Your task to perform on an android device: turn on data saver in the chrome app Image 0: 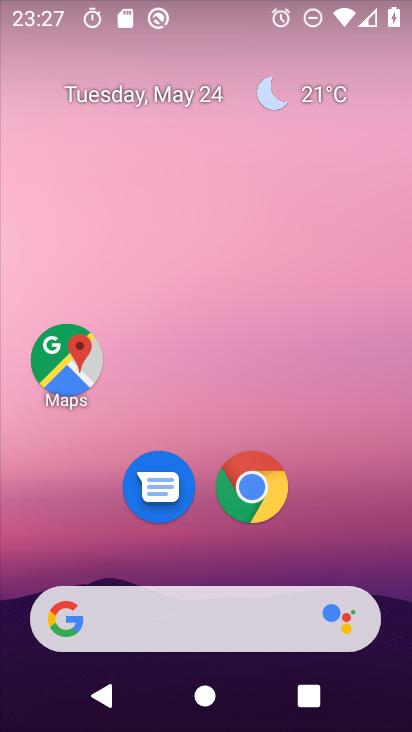
Step 0: click (259, 495)
Your task to perform on an android device: turn on data saver in the chrome app Image 1: 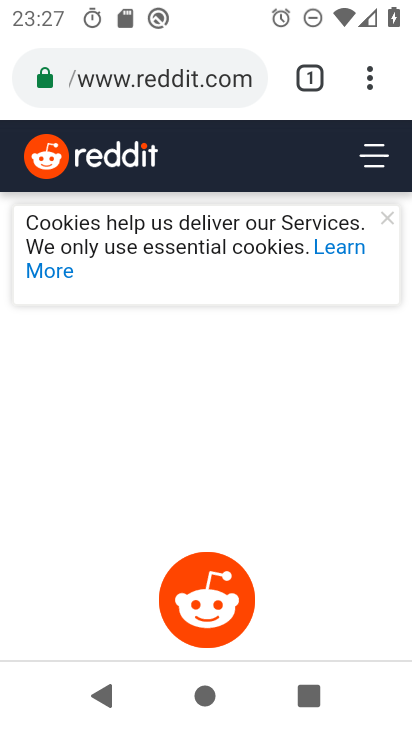
Step 1: click (371, 76)
Your task to perform on an android device: turn on data saver in the chrome app Image 2: 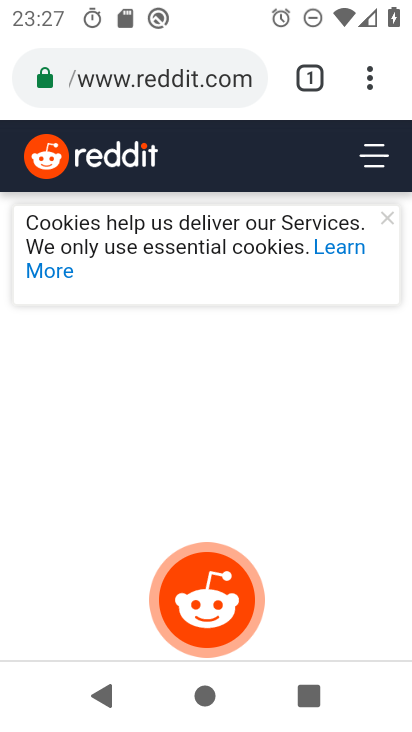
Step 2: click (369, 80)
Your task to perform on an android device: turn on data saver in the chrome app Image 3: 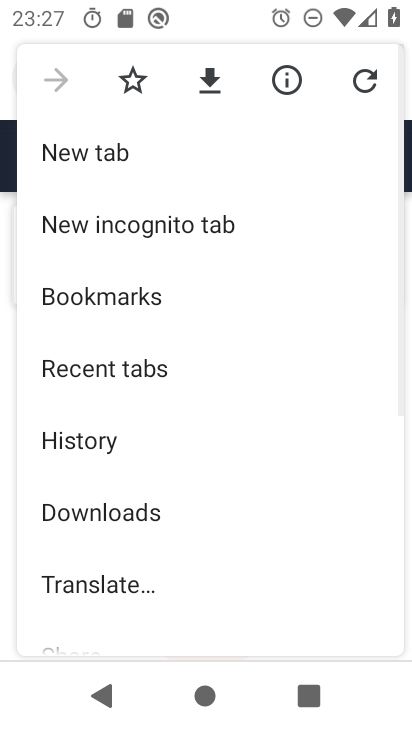
Step 3: drag from (153, 516) to (178, 68)
Your task to perform on an android device: turn on data saver in the chrome app Image 4: 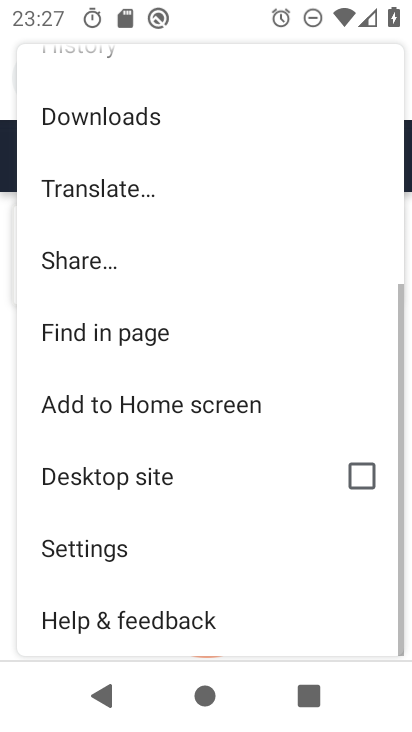
Step 4: click (102, 554)
Your task to perform on an android device: turn on data saver in the chrome app Image 5: 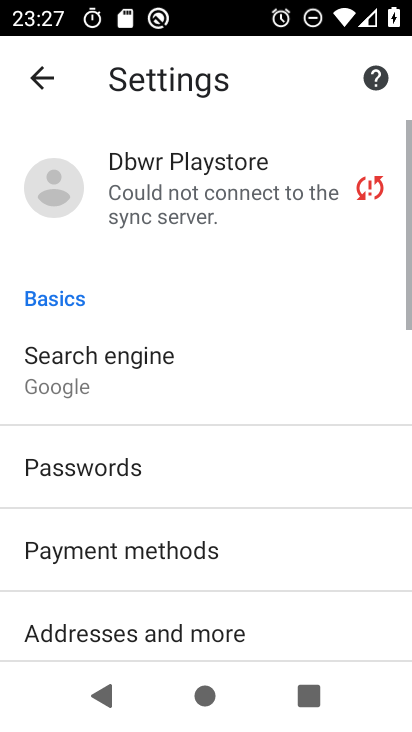
Step 5: drag from (190, 554) to (181, 12)
Your task to perform on an android device: turn on data saver in the chrome app Image 6: 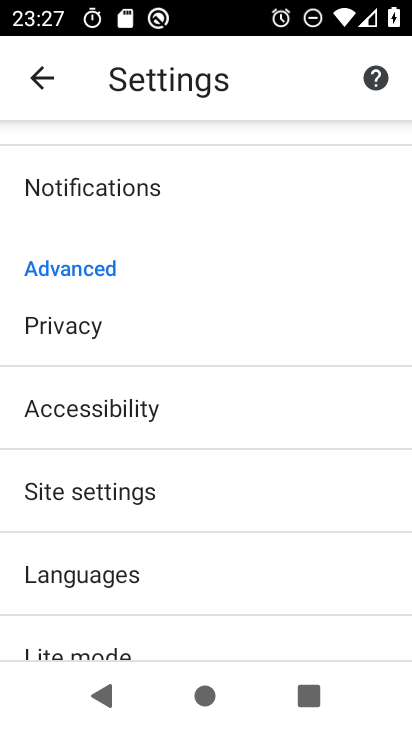
Step 6: drag from (200, 583) to (199, 278)
Your task to perform on an android device: turn on data saver in the chrome app Image 7: 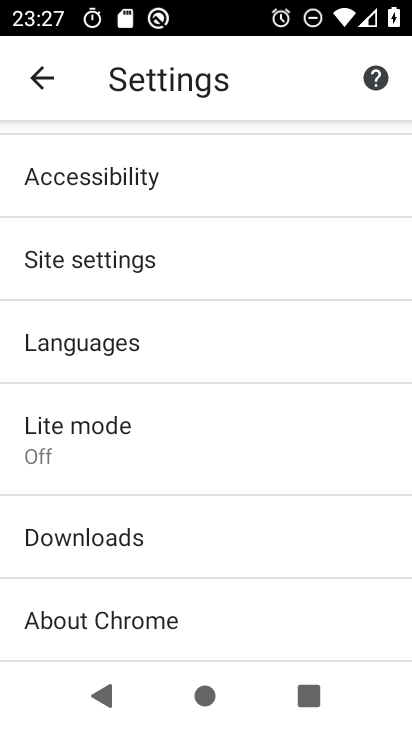
Step 7: click (83, 432)
Your task to perform on an android device: turn on data saver in the chrome app Image 8: 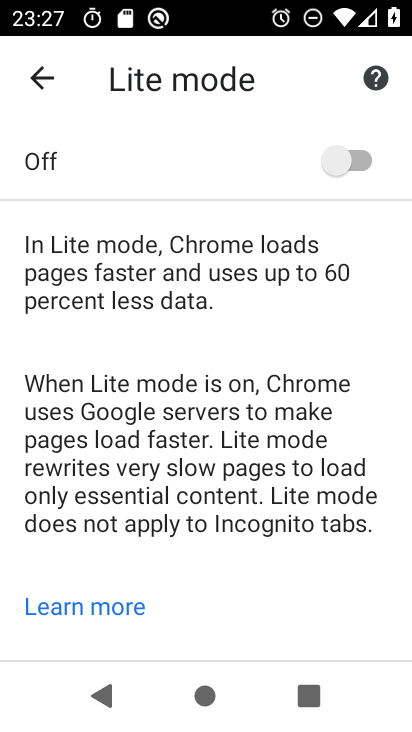
Step 8: click (334, 161)
Your task to perform on an android device: turn on data saver in the chrome app Image 9: 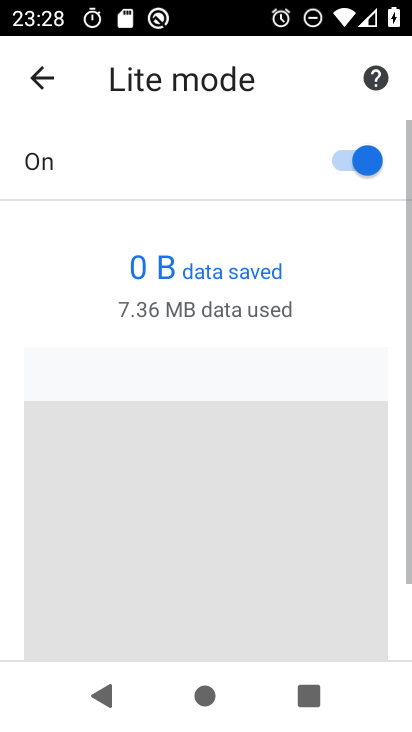
Step 9: task complete